Your task to perform on an android device: change text size in settings app Image 0: 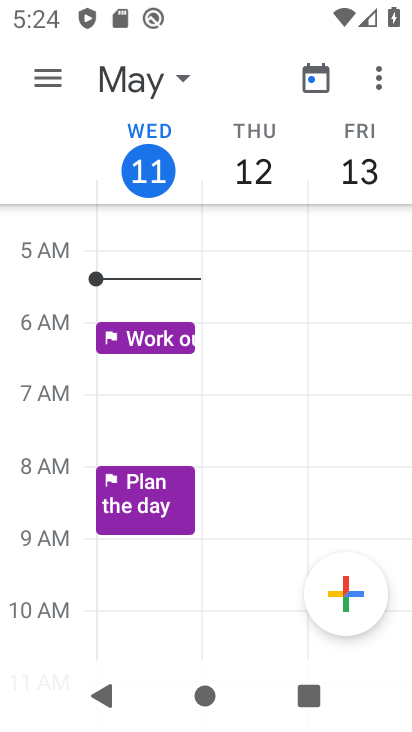
Step 0: press home button
Your task to perform on an android device: change text size in settings app Image 1: 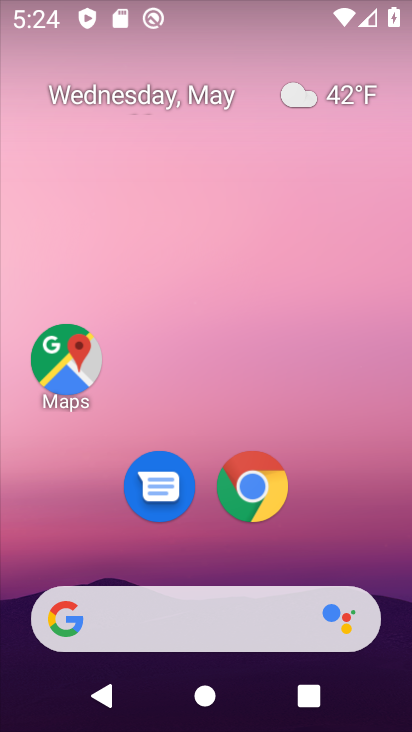
Step 1: drag from (200, 524) to (326, 0)
Your task to perform on an android device: change text size in settings app Image 2: 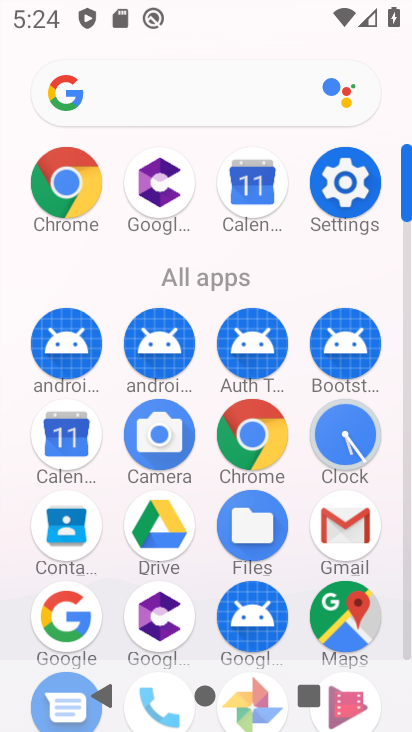
Step 2: drag from (211, 545) to (283, 17)
Your task to perform on an android device: change text size in settings app Image 3: 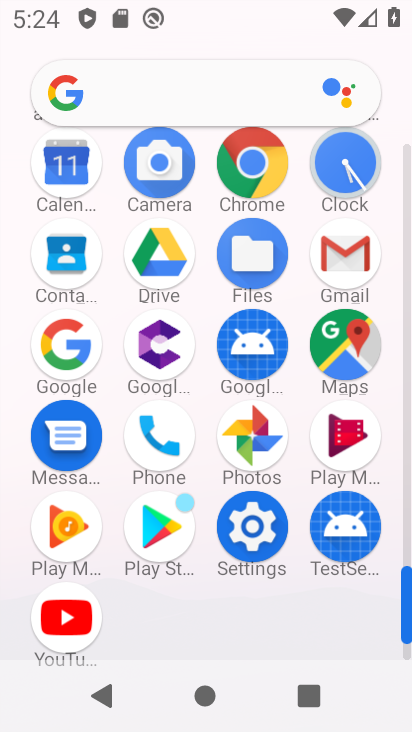
Step 3: click (257, 549)
Your task to perform on an android device: change text size in settings app Image 4: 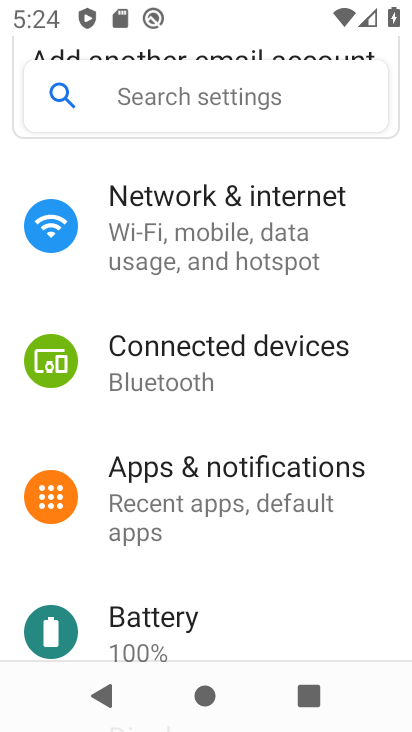
Step 4: drag from (248, 527) to (306, 192)
Your task to perform on an android device: change text size in settings app Image 5: 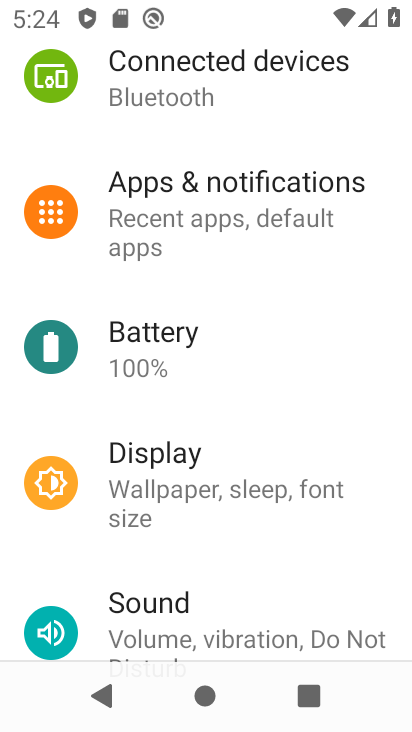
Step 5: click (186, 465)
Your task to perform on an android device: change text size in settings app Image 6: 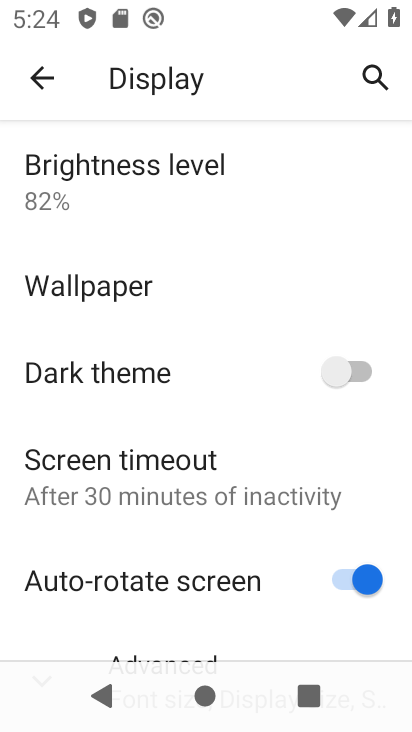
Step 6: drag from (149, 511) to (200, 155)
Your task to perform on an android device: change text size in settings app Image 7: 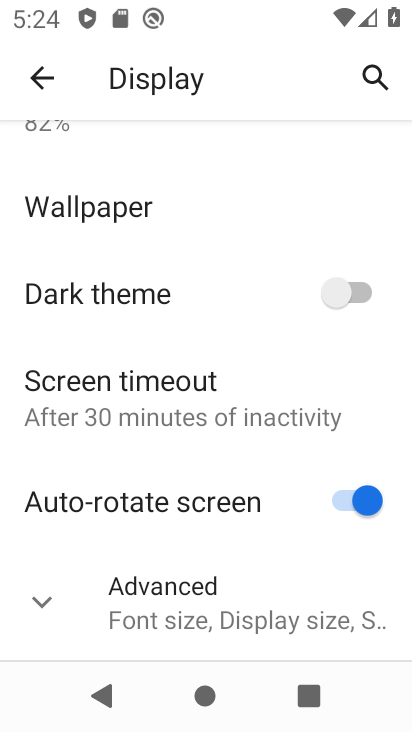
Step 7: click (156, 608)
Your task to perform on an android device: change text size in settings app Image 8: 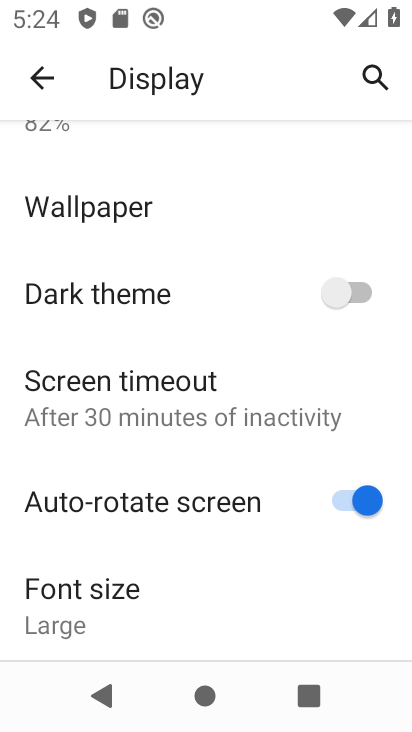
Step 8: drag from (185, 585) to (222, 337)
Your task to perform on an android device: change text size in settings app Image 9: 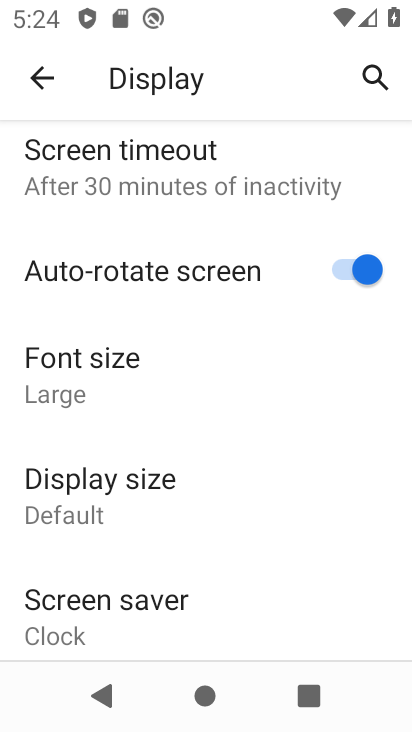
Step 9: click (75, 398)
Your task to perform on an android device: change text size in settings app Image 10: 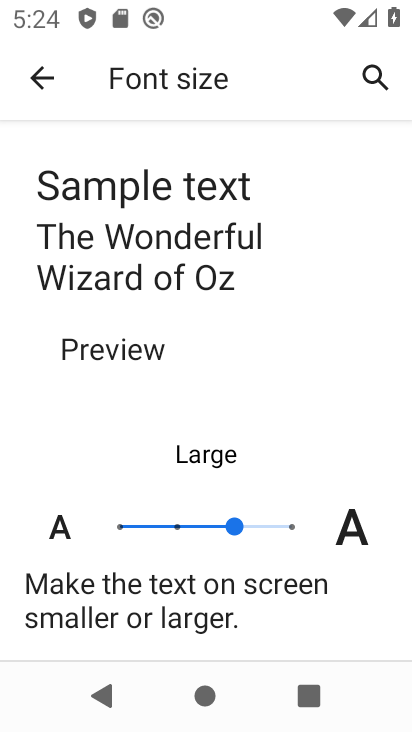
Step 10: click (173, 526)
Your task to perform on an android device: change text size in settings app Image 11: 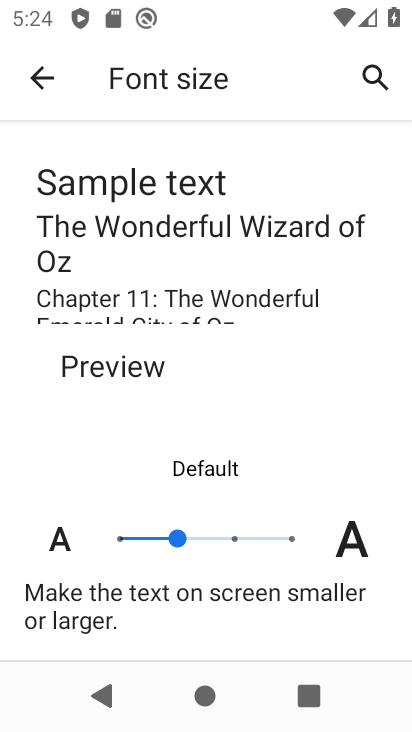
Step 11: task complete